Your task to perform on an android device: Open Google Maps Image 0: 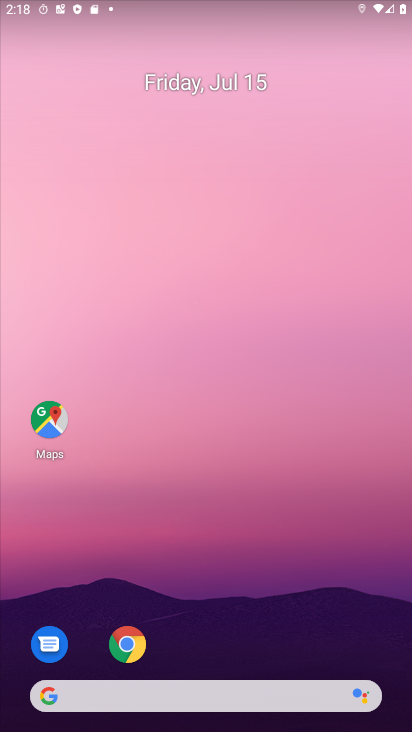
Step 0: drag from (337, 536) to (221, 54)
Your task to perform on an android device: Open Google Maps Image 1: 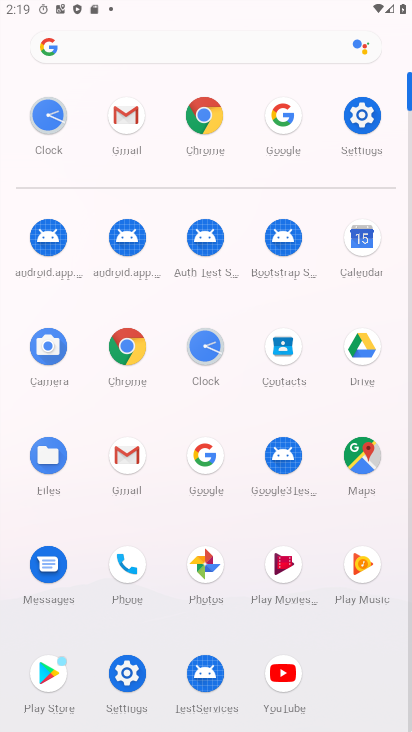
Step 1: click (364, 456)
Your task to perform on an android device: Open Google Maps Image 2: 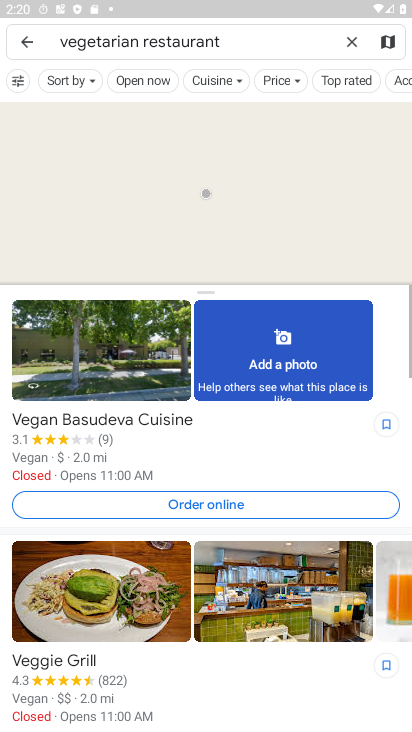
Step 2: click (350, 26)
Your task to perform on an android device: Open Google Maps Image 3: 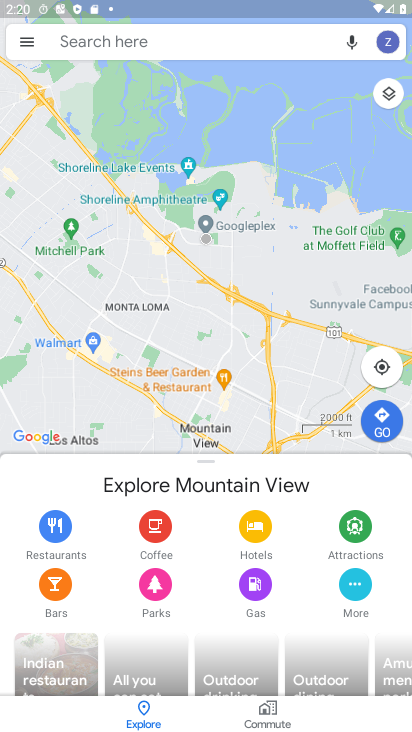
Step 3: task complete